Your task to perform on an android device: What is the recent news? Image 0: 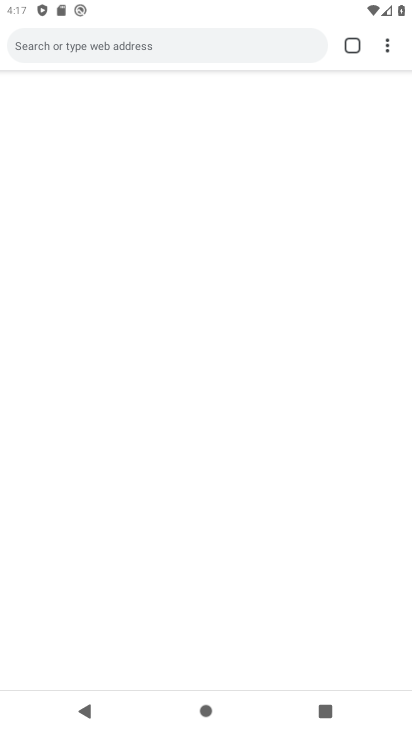
Step 0: drag from (217, 641) to (300, 253)
Your task to perform on an android device: What is the recent news? Image 1: 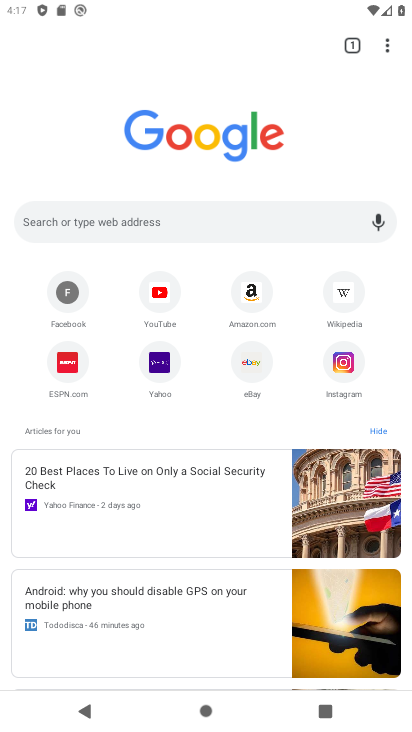
Step 1: task complete